Your task to perform on an android device: install app "Pinterest" Image 0: 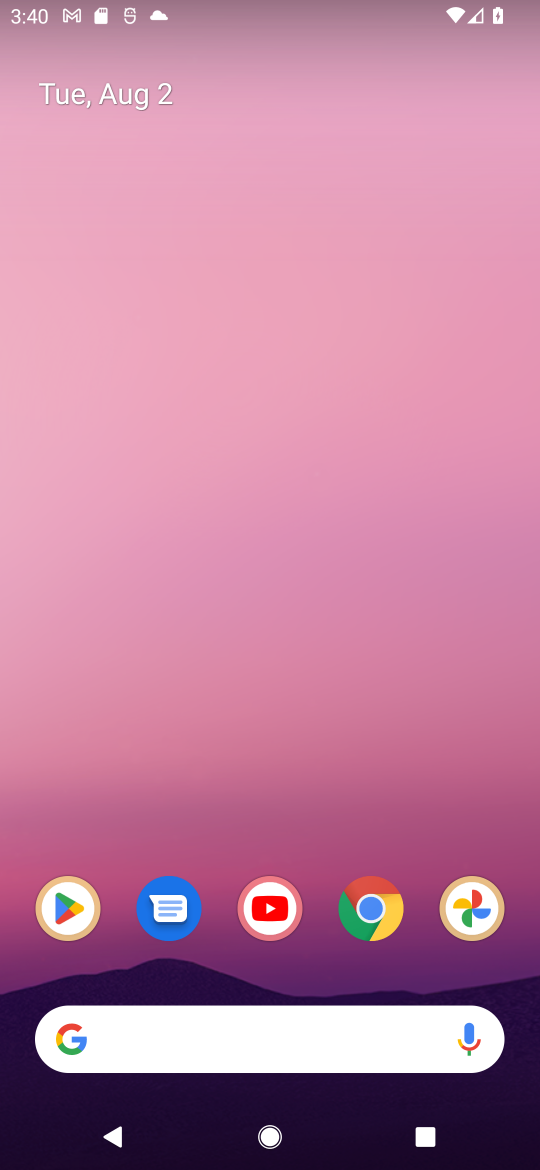
Step 0: press home button
Your task to perform on an android device: install app "Pinterest" Image 1: 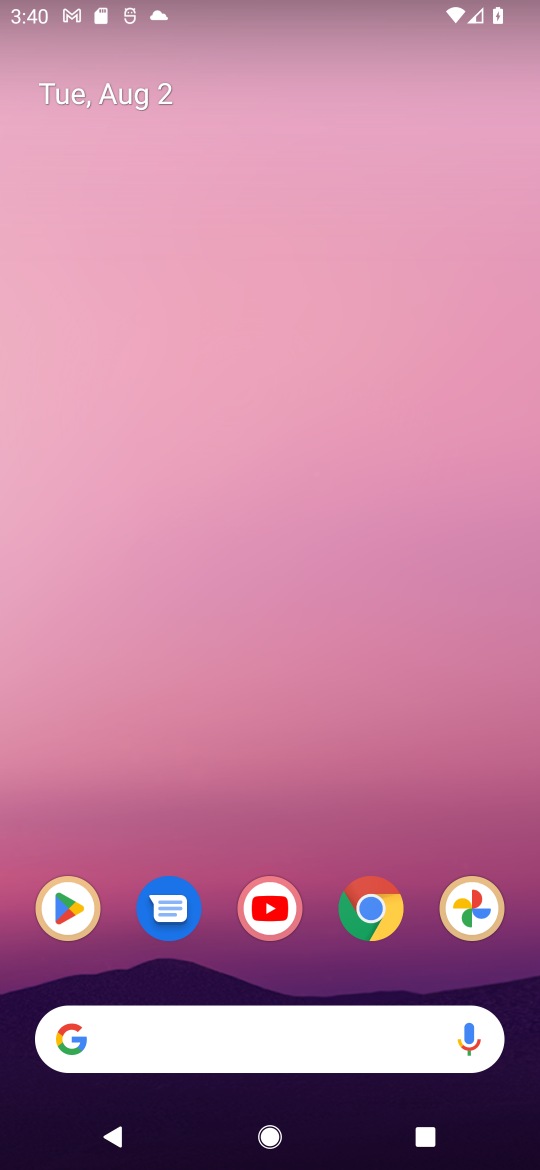
Step 1: click (65, 902)
Your task to perform on an android device: install app "Pinterest" Image 2: 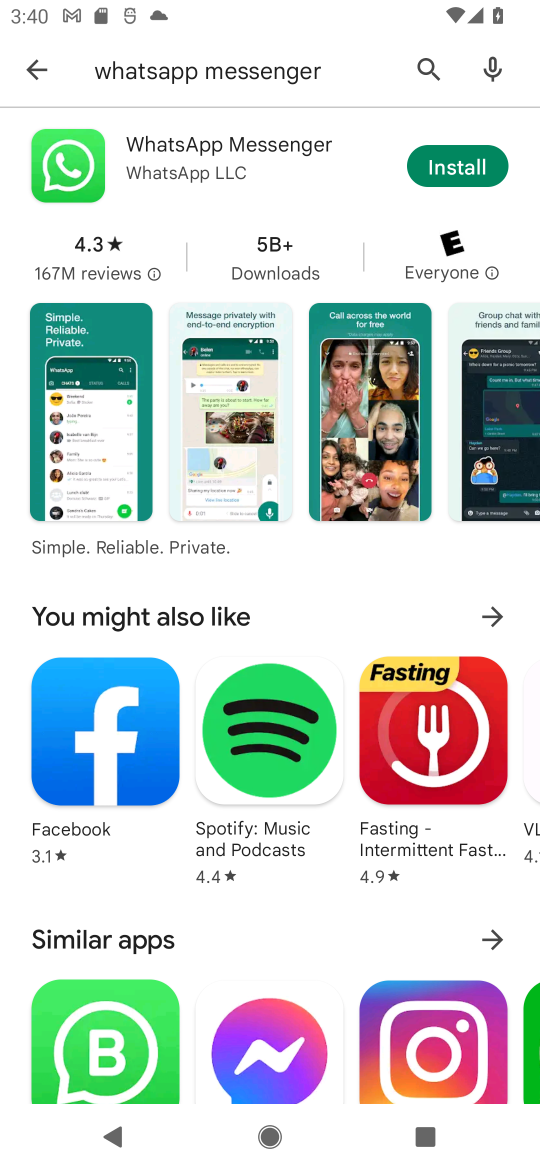
Step 2: click (420, 63)
Your task to perform on an android device: install app "Pinterest" Image 3: 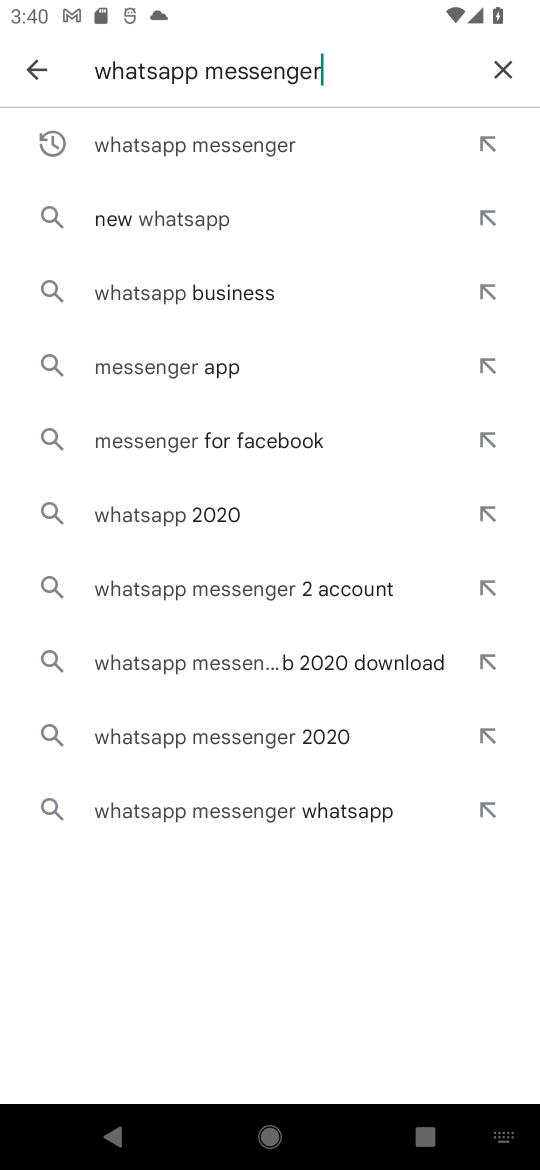
Step 3: click (502, 70)
Your task to perform on an android device: install app "Pinterest" Image 4: 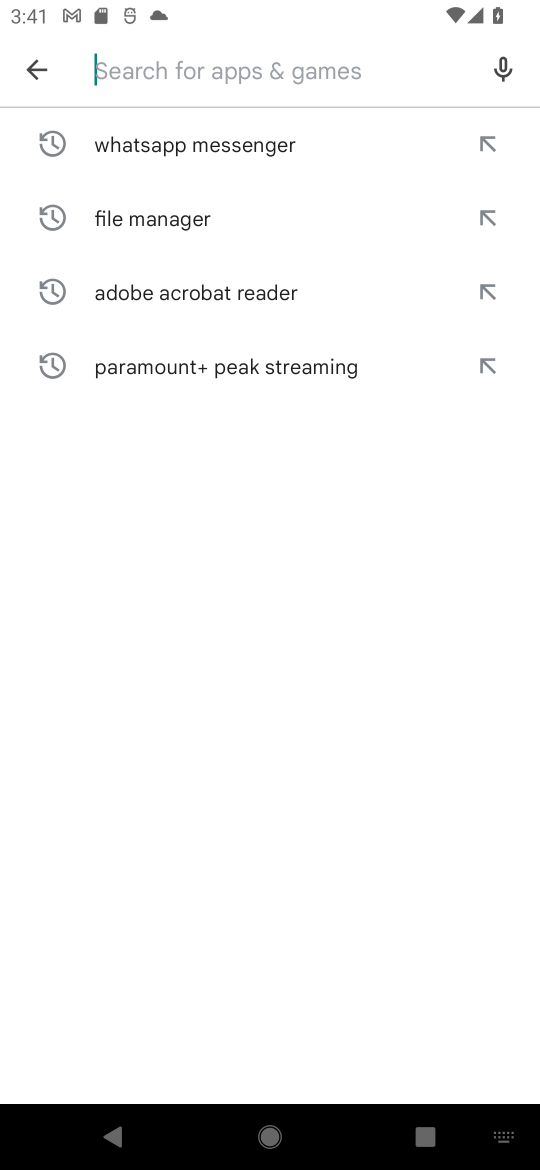
Step 4: type "Pinterest"
Your task to perform on an android device: install app "Pinterest" Image 5: 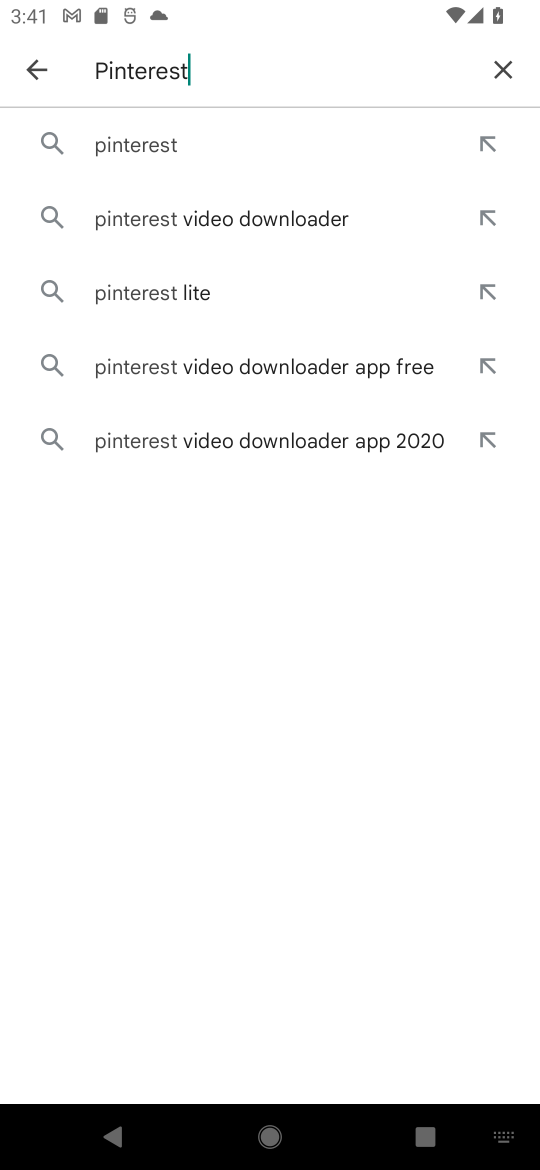
Step 5: click (192, 128)
Your task to perform on an android device: install app "Pinterest" Image 6: 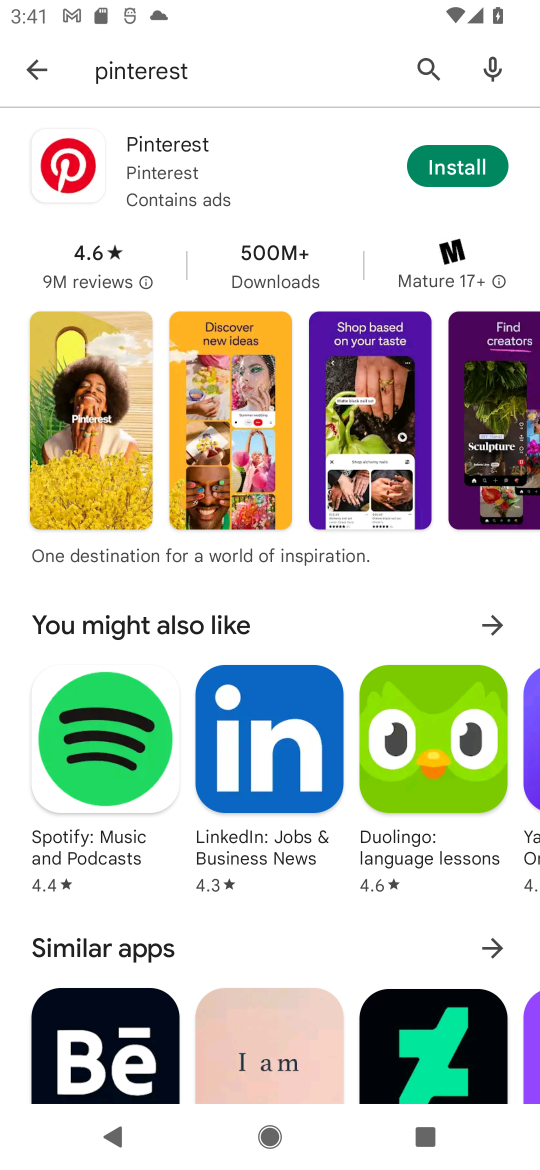
Step 6: click (454, 161)
Your task to perform on an android device: install app "Pinterest" Image 7: 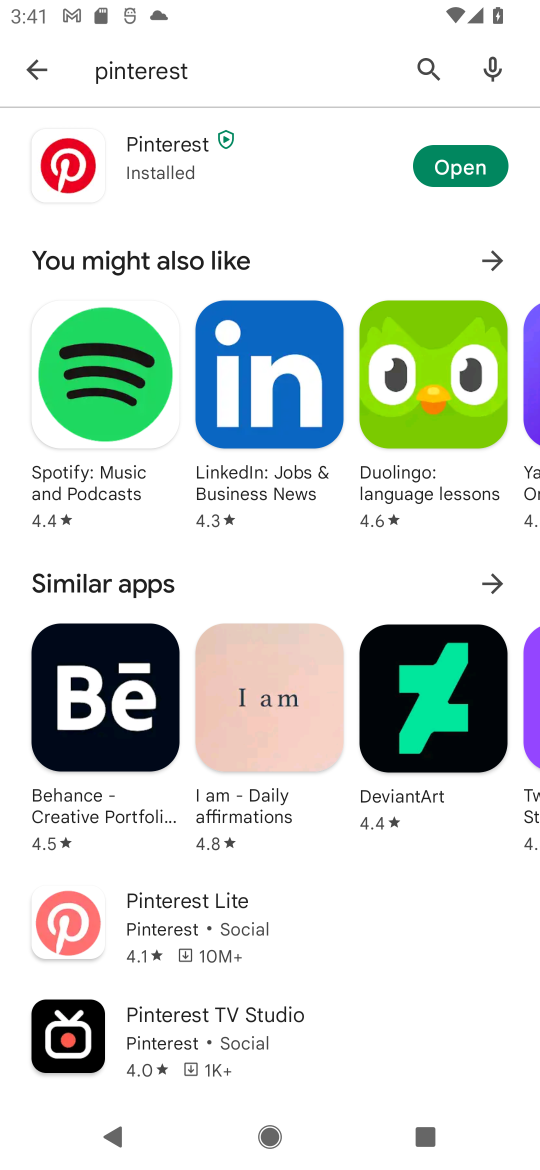
Step 7: click (460, 169)
Your task to perform on an android device: install app "Pinterest" Image 8: 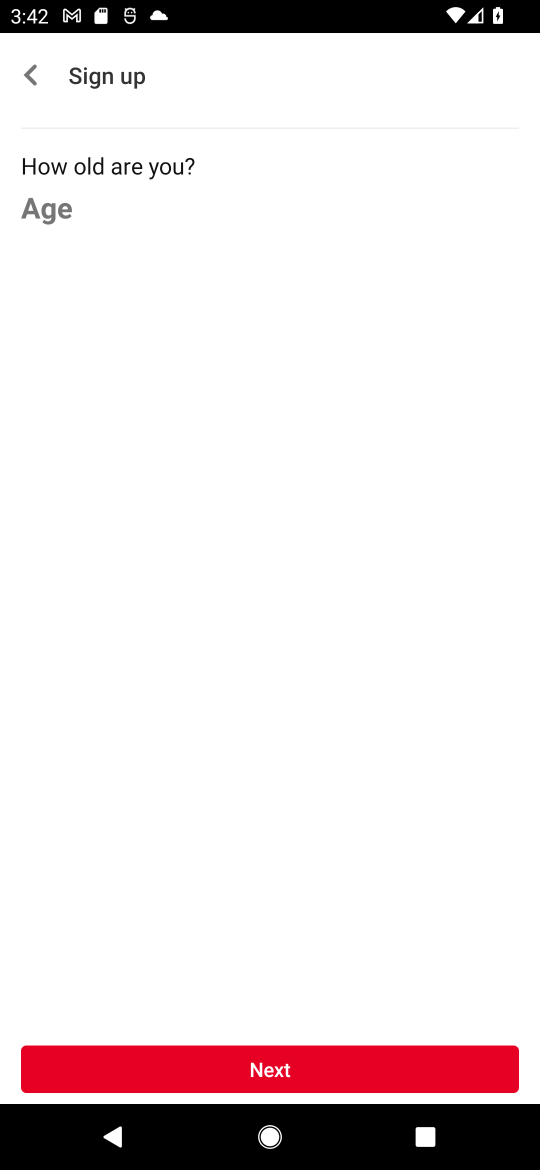
Step 8: click (270, 1070)
Your task to perform on an android device: install app "Pinterest" Image 9: 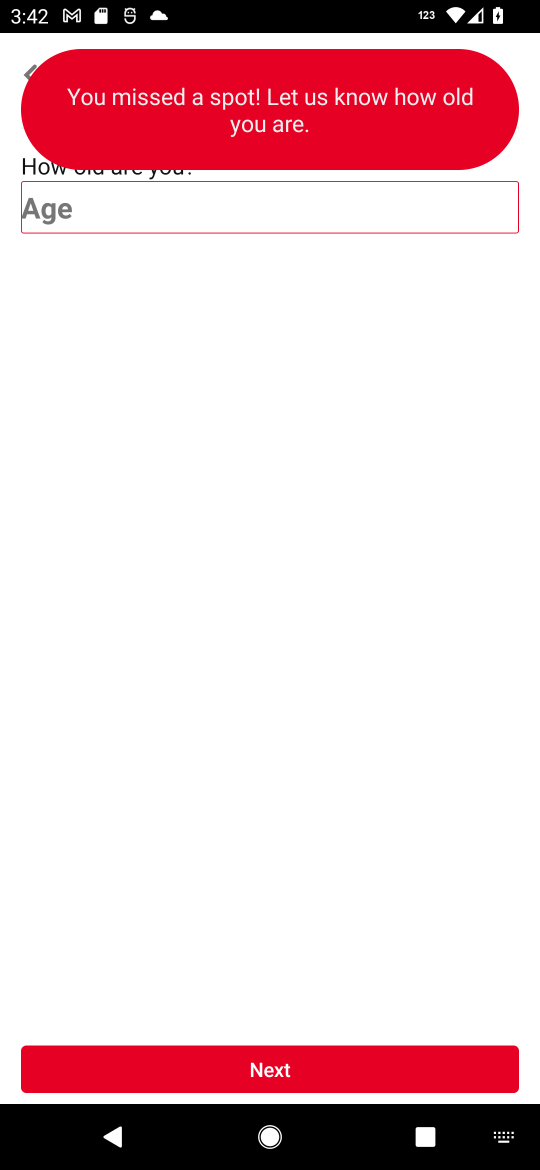
Step 9: click (69, 200)
Your task to perform on an android device: install app "Pinterest" Image 10: 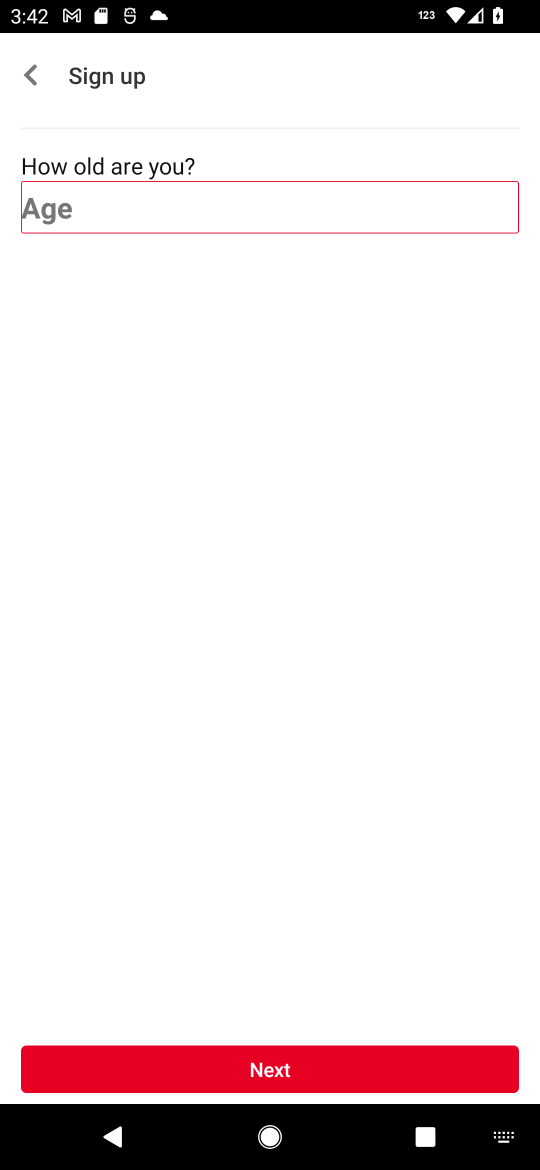
Step 10: type "29"
Your task to perform on an android device: install app "Pinterest" Image 11: 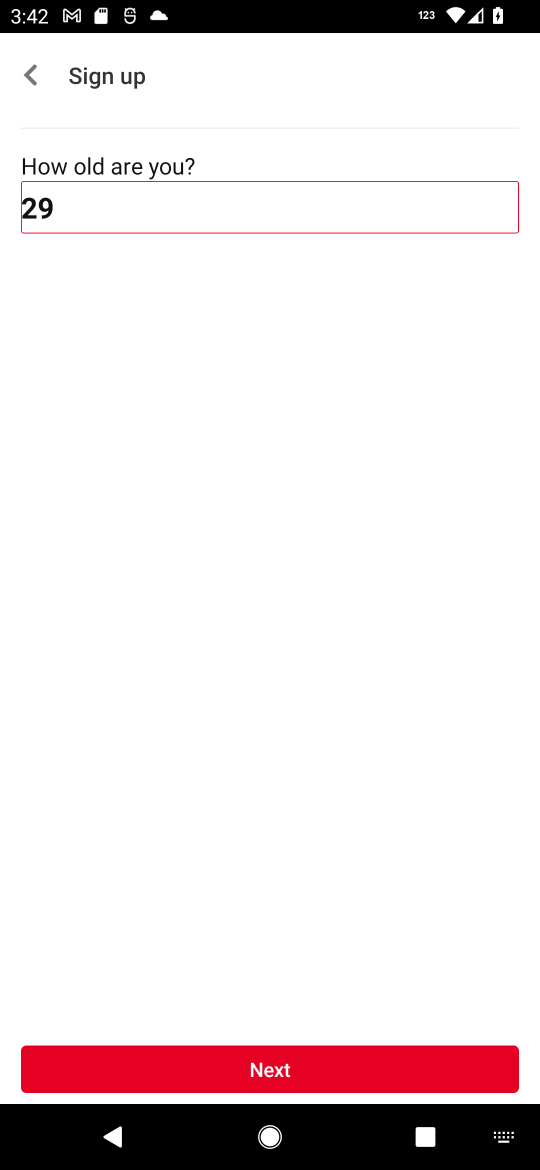
Step 11: click (356, 1076)
Your task to perform on an android device: install app "Pinterest" Image 12: 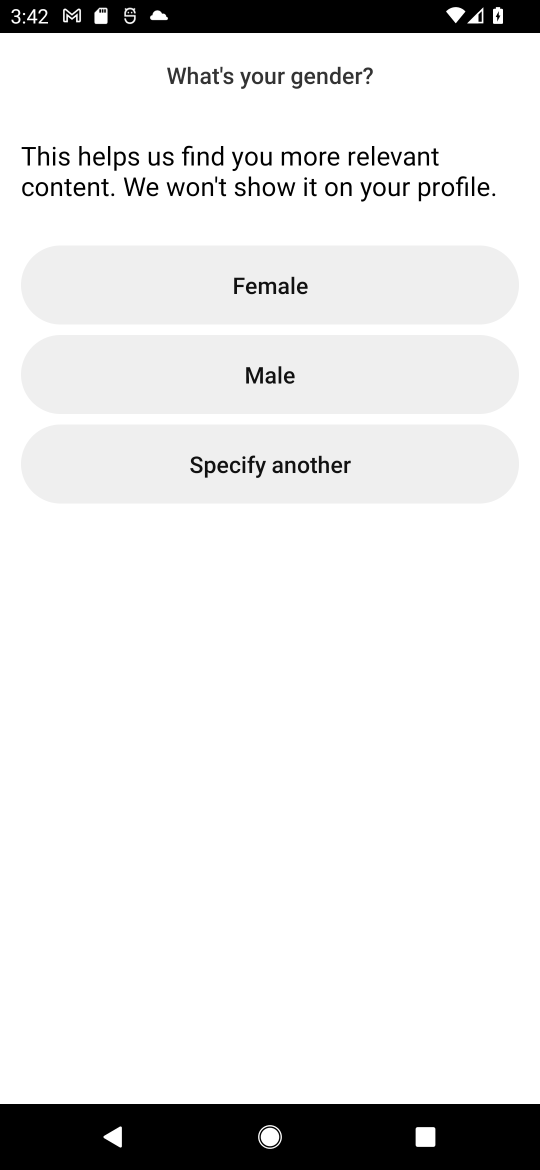
Step 12: click (239, 384)
Your task to perform on an android device: install app "Pinterest" Image 13: 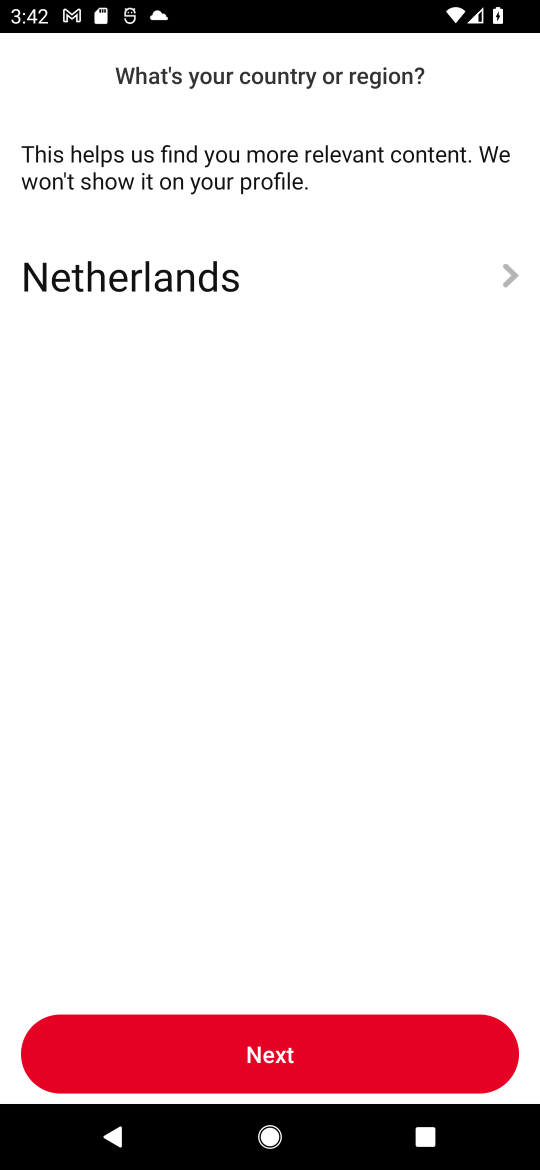
Step 13: click (494, 275)
Your task to perform on an android device: install app "Pinterest" Image 14: 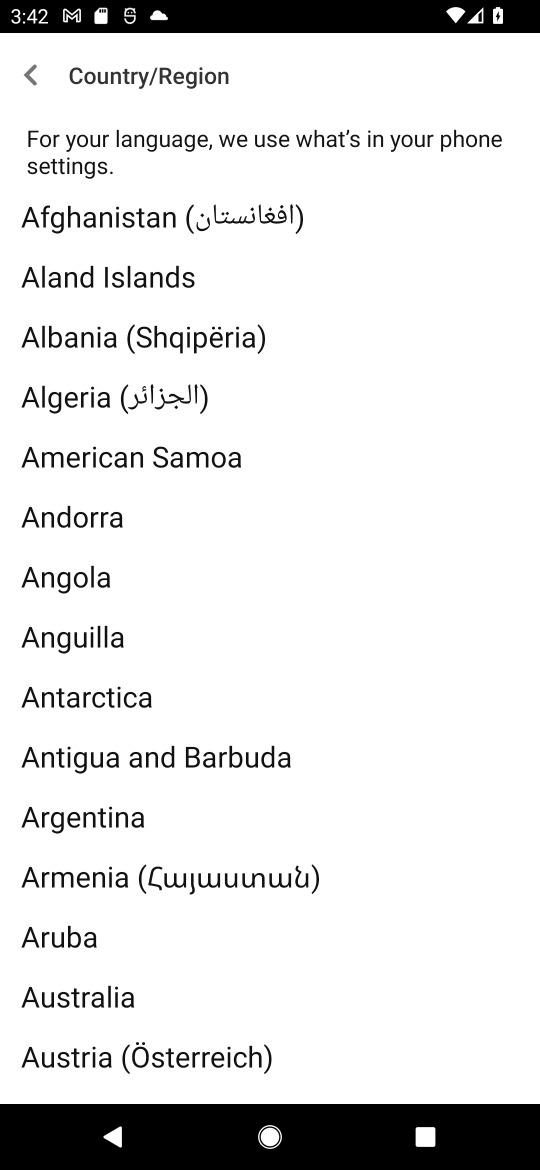
Step 14: drag from (159, 905) to (131, 175)
Your task to perform on an android device: install app "Pinterest" Image 15: 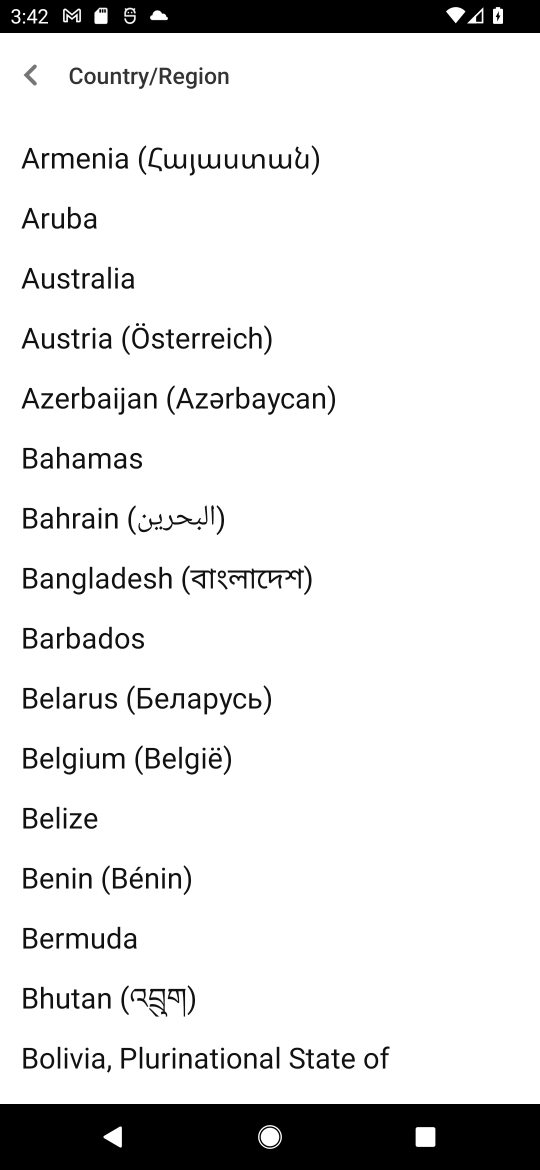
Step 15: drag from (148, 1028) to (192, 380)
Your task to perform on an android device: install app "Pinterest" Image 16: 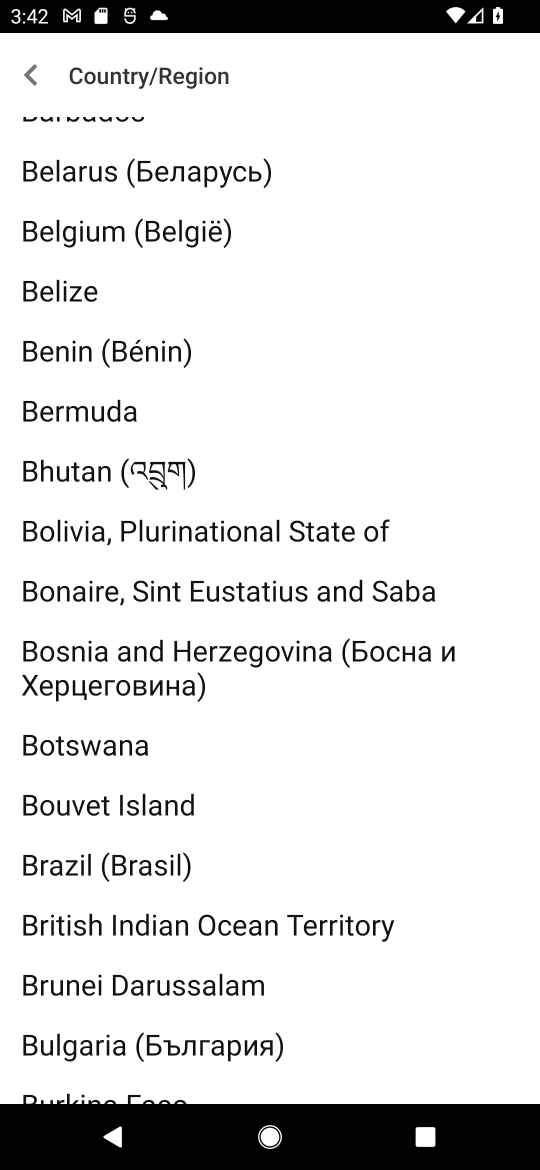
Step 16: drag from (208, 967) to (171, 142)
Your task to perform on an android device: install app "Pinterest" Image 17: 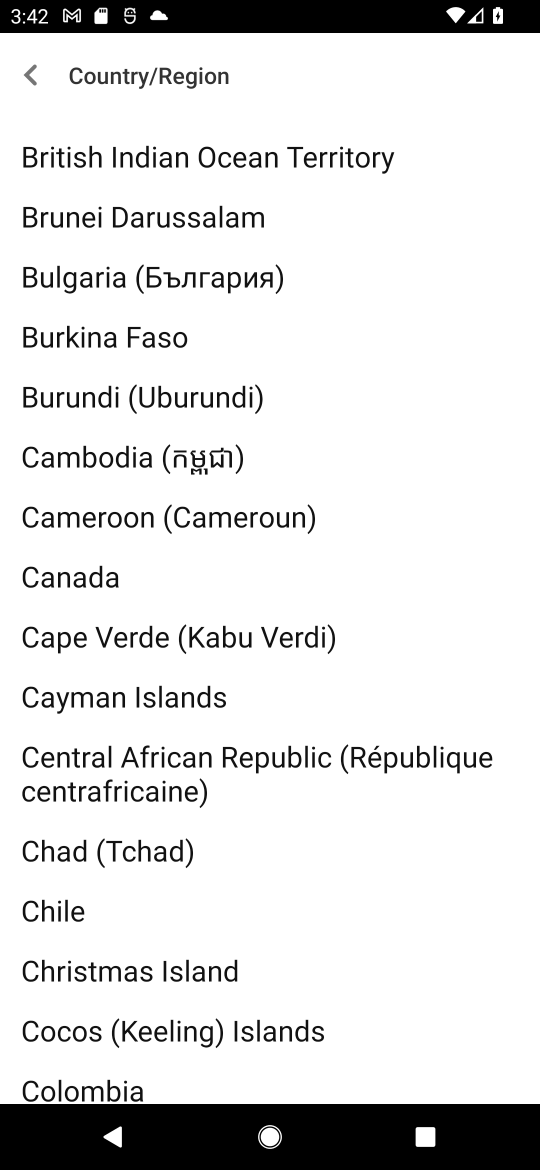
Step 17: click (160, 1083)
Your task to perform on an android device: install app "Pinterest" Image 18: 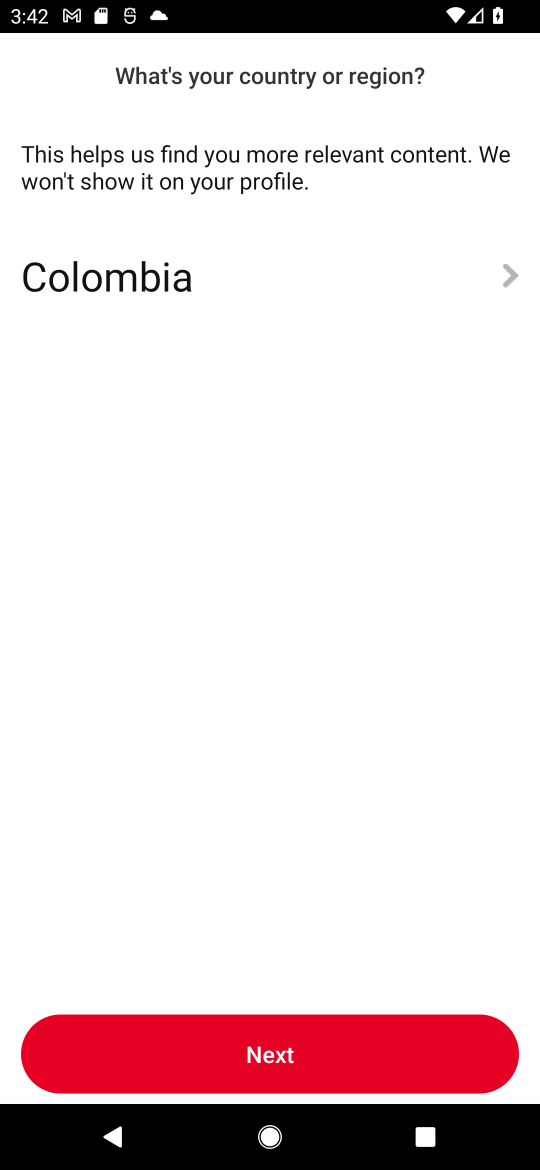
Step 18: click (301, 1042)
Your task to perform on an android device: install app "Pinterest" Image 19: 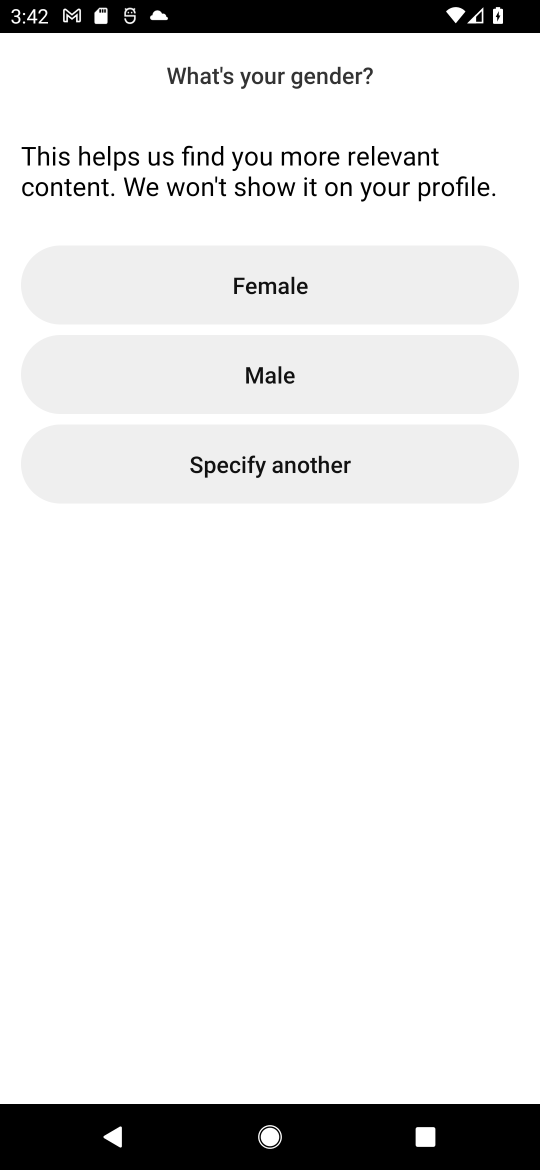
Step 19: click (257, 369)
Your task to perform on an android device: install app "Pinterest" Image 20: 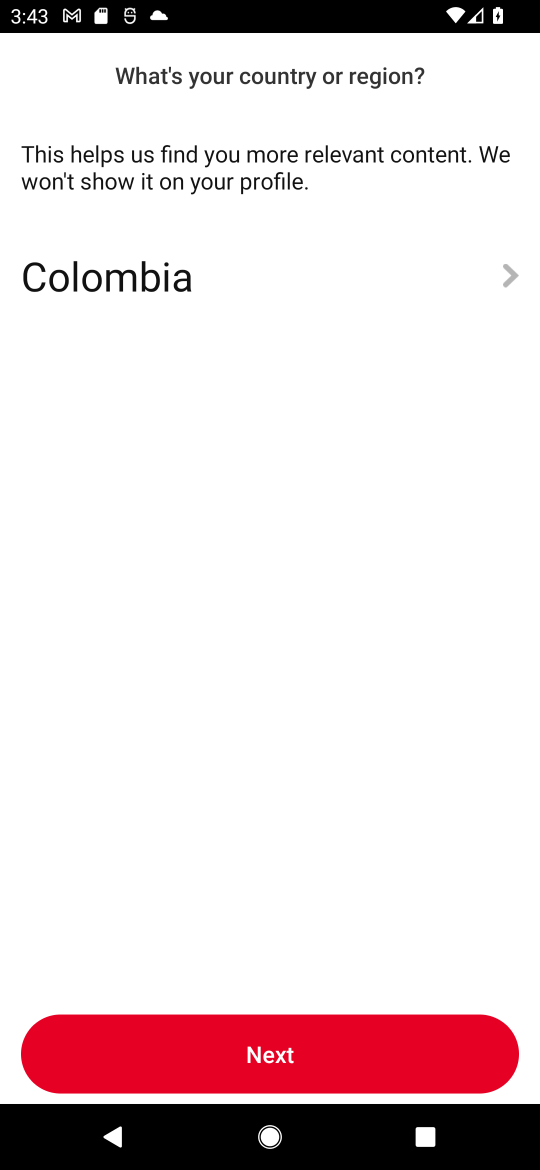
Step 20: task complete